Your task to perform on an android device: Clear the shopping cart on ebay.com. Search for bose soundlink mini on ebay.com, select the first entry, add it to the cart, then select checkout. Image 0: 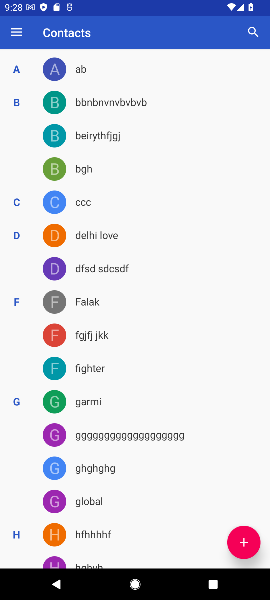
Step 0: press home button
Your task to perform on an android device: Clear the shopping cart on ebay.com. Search for bose soundlink mini on ebay.com, select the first entry, add it to the cart, then select checkout. Image 1: 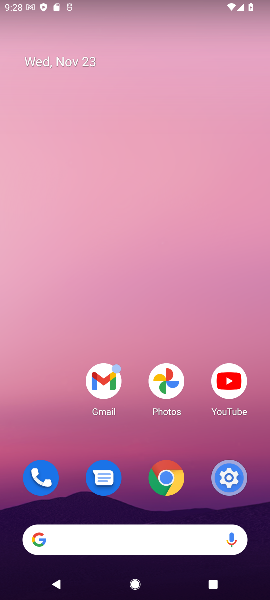
Step 1: click (161, 538)
Your task to perform on an android device: Clear the shopping cart on ebay.com. Search for bose soundlink mini on ebay.com, select the first entry, add it to the cart, then select checkout. Image 2: 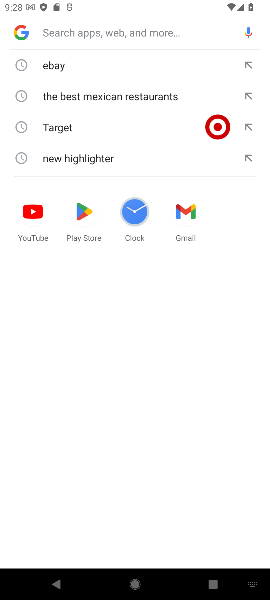
Step 2: type "ebay.com"
Your task to perform on an android device: Clear the shopping cart on ebay.com. Search for bose soundlink mini on ebay.com, select the first entry, add it to the cart, then select checkout. Image 3: 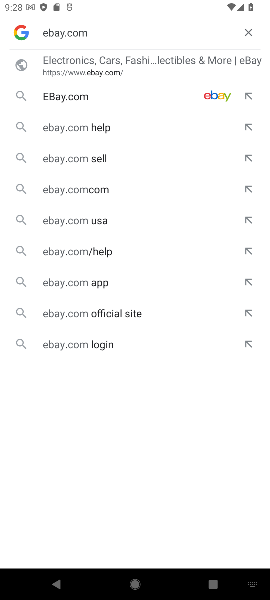
Step 3: click (146, 66)
Your task to perform on an android device: Clear the shopping cart on ebay.com. Search for bose soundlink mini on ebay.com, select the first entry, add it to the cart, then select checkout. Image 4: 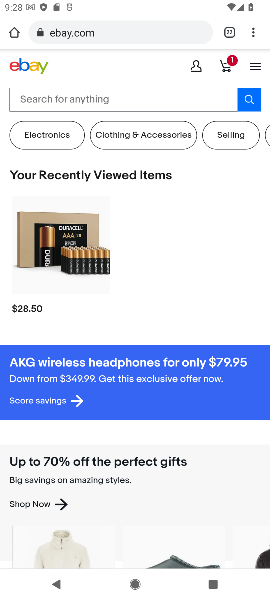
Step 4: click (131, 92)
Your task to perform on an android device: Clear the shopping cart on ebay.com. Search for bose soundlink mini on ebay.com, select the first entry, add it to the cart, then select checkout. Image 5: 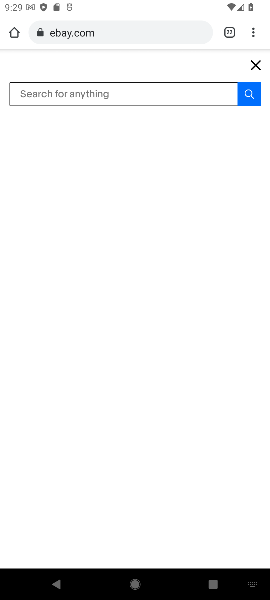
Step 5: type "bose soundlink"
Your task to perform on an android device: Clear the shopping cart on ebay.com. Search for bose soundlink mini on ebay.com, select the first entry, add it to the cart, then select checkout. Image 6: 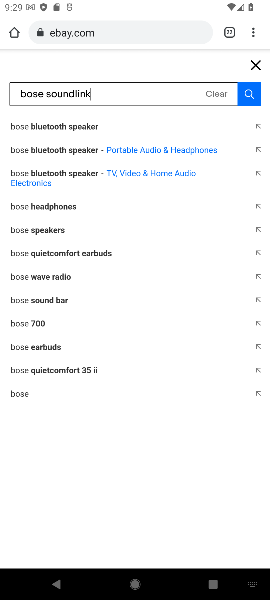
Step 6: click (78, 122)
Your task to perform on an android device: Clear the shopping cart on ebay.com. Search for bose soundlink mini on ebay.com, select the first entry, add it to the cart, then select checkout. Image 7: 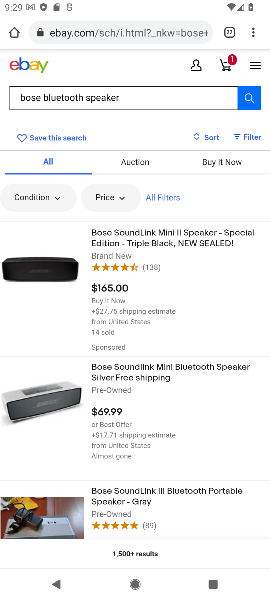
Step 7: click (107, 236)
Your task to perform on an android device: Clear the shopping cart on ebay.com. Search for bose soundlink mini on ebay.com, select the first entry, add it to the cart, then select checkout. Image 8: 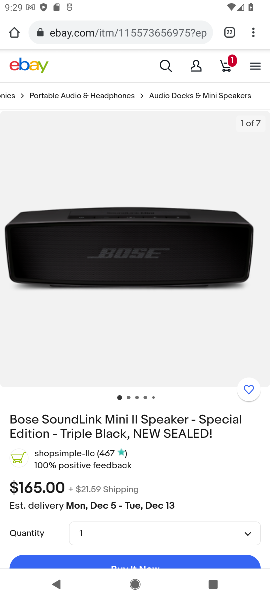
Step 8: drag from (150, 462) to (148, 320)
Your task to perform on an android device: Clear the shopping cart on ebay.com. Search for bose soundlink mini on ebay.com, select the first entry, add it to the cart, then select checkout. Image 9: 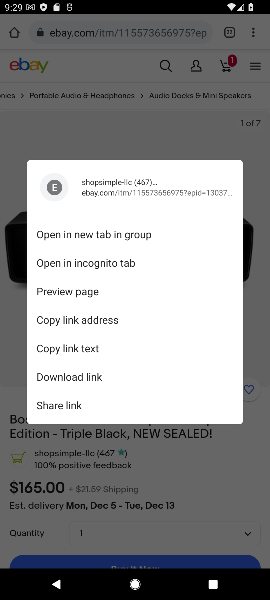
Step 9: click (222, 489)
Your task to perform on an android device: Clear the shopping cart on ebay.com. Search for bose soundlink mini on ebay.com, select the first entry, add it to the cart, then select checkout. Image 10: 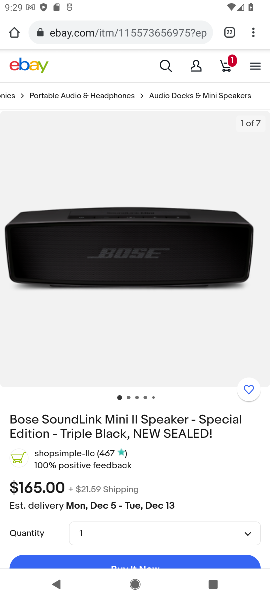
Step 10: drag from (222, 489) to (208, 207)
Your task to perform on an android device: Clear the shopping cart on ebay.com. Search for bose soundlink mini on ebay.com, select the first entry, add it to the cart, then select checkout. Image 11: 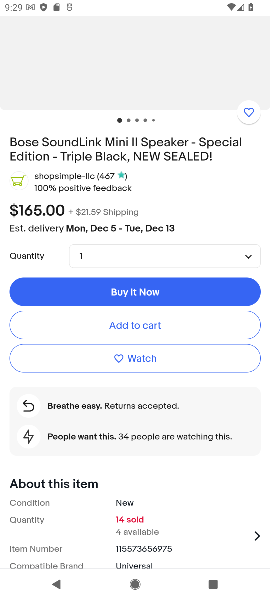
Step 11: click (174, 327)
Your task to perform on an android device: Clear the shopping cart on ebay.com. Search for bose soundlink mini on ebay.com, select the first entry, add it to the cart, then select checkout. Image 12: 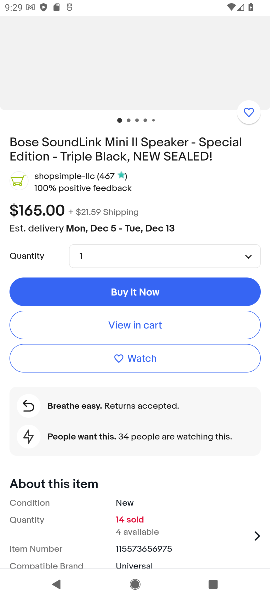
Step 12: task complete